Your task to perform on an android device: Open calendar and show me the second week of next month Image 0: 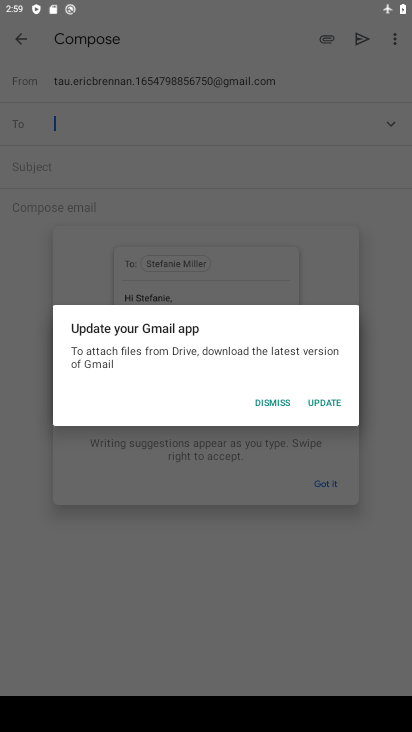
Step 0: click (296, 400)
Your task to perform on an android device: Open calendar and show me the second week of next month Image 1: 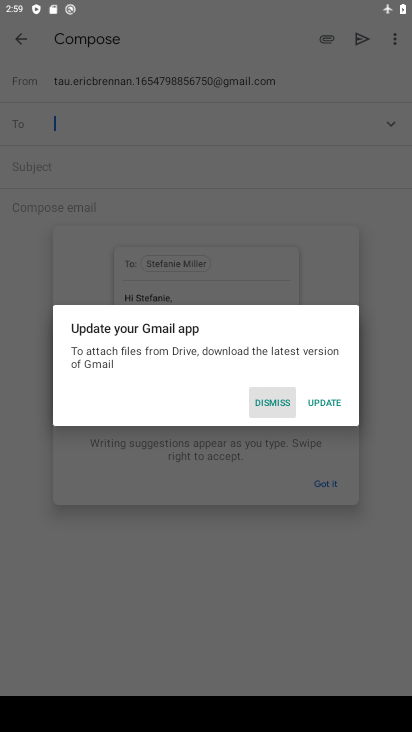
Step 1: click (293, 401)
Your task to perform on an android device: Open calendar and show me the second week of next month Image 2: 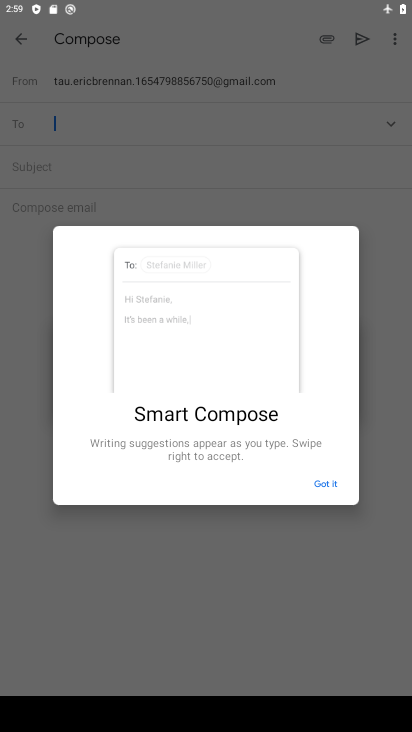
Step 2: click (328, 484)
Your task to perform on an android device: Open calendar and show me the second week of next month Image 3: 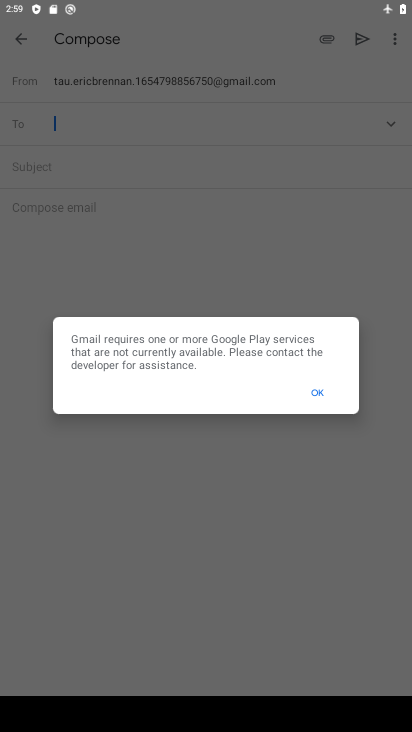
Step 3: click (318, 385)
Your task to perform on an android device: Open calendar and show me the second week of next month Image 4: 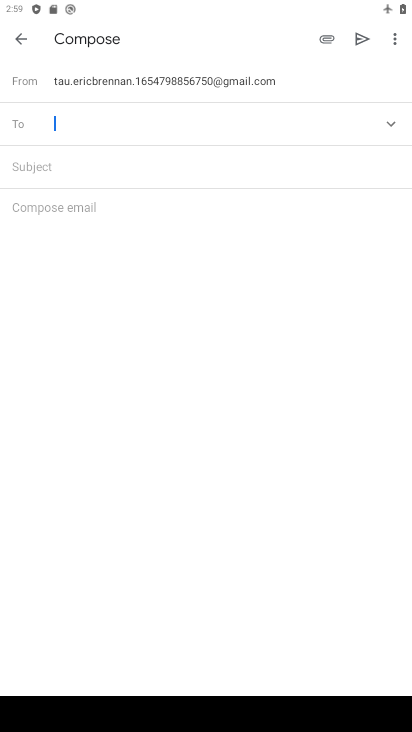
Step 4: click (16, 38)
Your task to perform on an android device: Open calendar and show me the second week of next month Image 5: 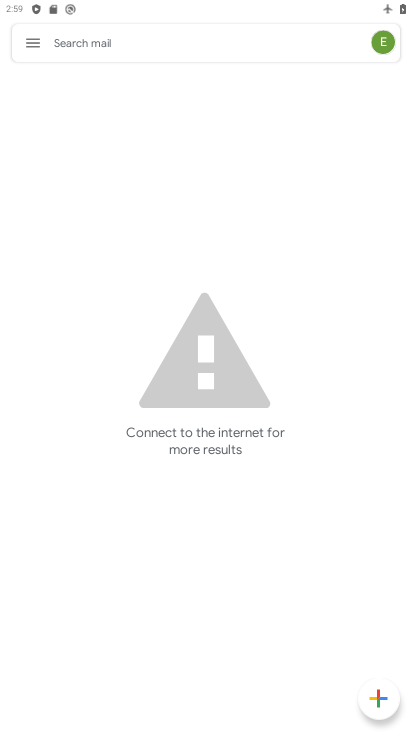
Step 5: press back button
Your task to perform on an android device: Open calendar and show me the second week of next month Image 6: 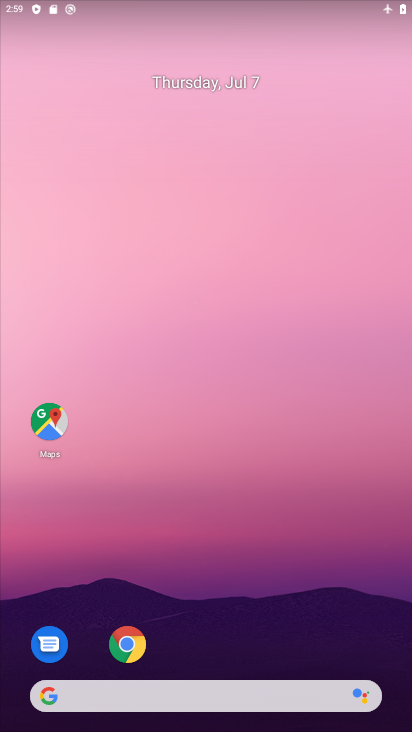
Step 6: drag from (242, 555) to (190, 282)
Your task to perform on an android device: Open calendar and show me the second week of next month Image 7: 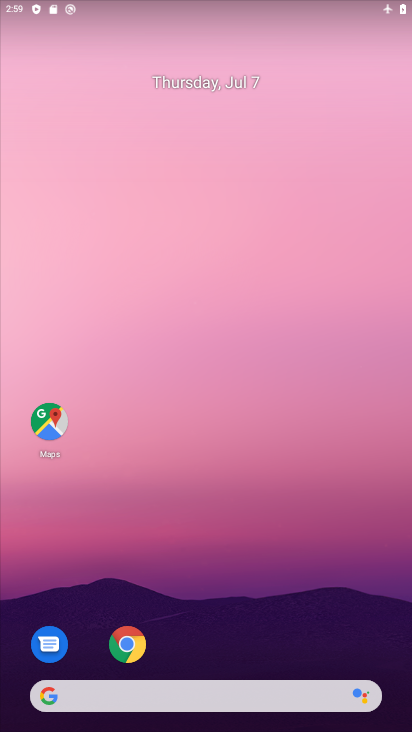
Step 7: drag from (293, 669) to (191, 222)
Your task to perform on an android device: Open calendar and show me the second week of next month Image 8: 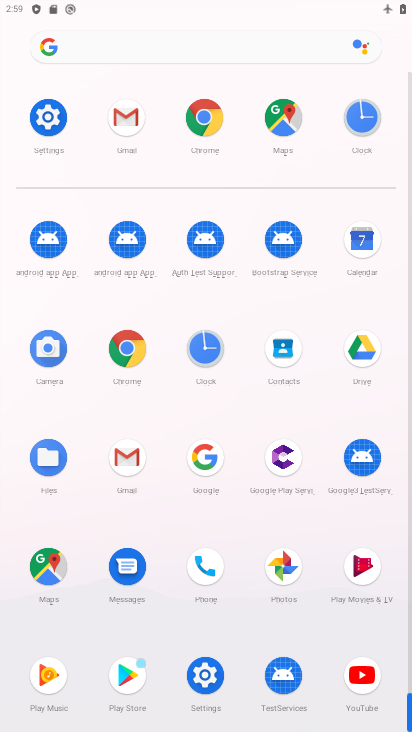
Step 8: click (364, 231)
Your task to perform on an android device: Open calendar and show me the second week of next month Image 9: 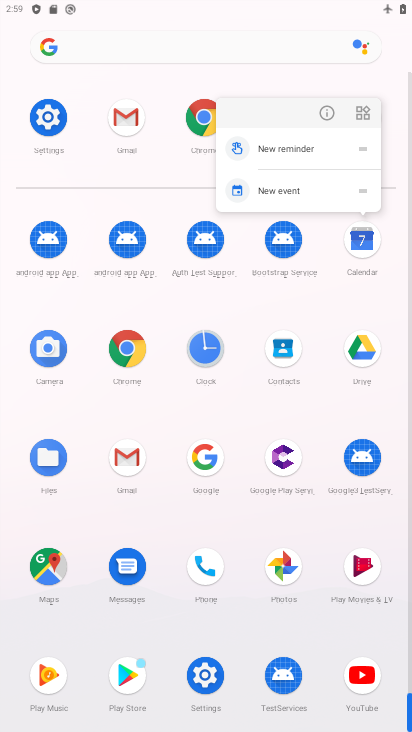
Step 9: click (356, 242)
Your task to perform on an android device: Open calendar and show me the second week of next month Image 10: 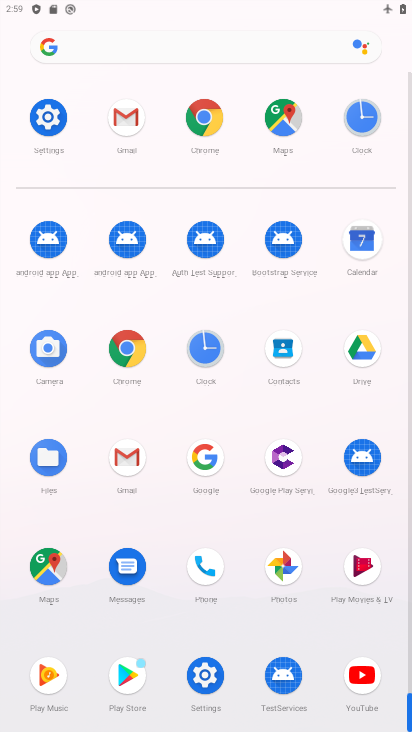
Step 10: click (357, 241)
Your task to perform on an android device: Open calendar and show me the second week of next month Image 11: 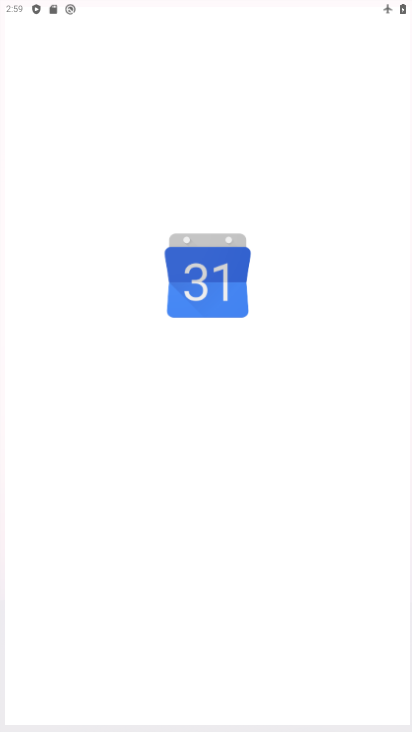
Step 11: click (357, 241)
Your task to perform on an android device: Open calendar and show me the second week of next month Image 12: 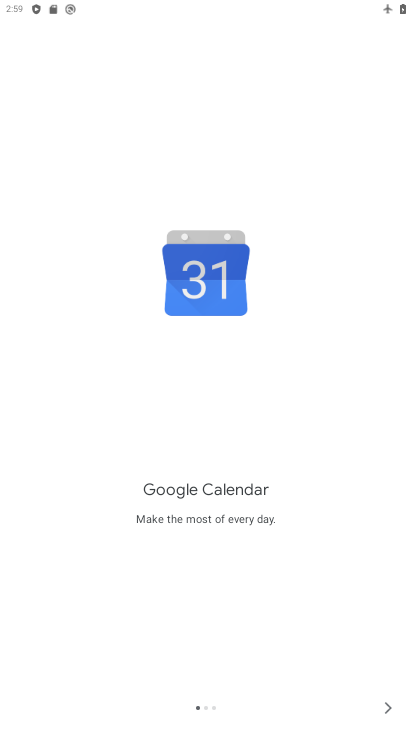
Step 12: click (388, 699)
Your task to perform on an android device: Open calendar and show me the second week of next month Image 13: 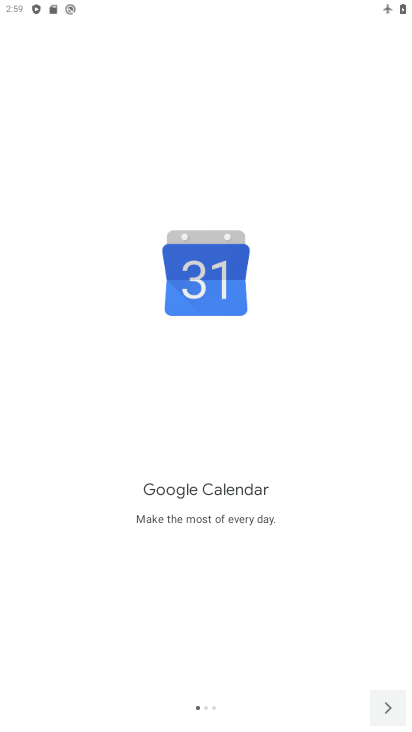
Step 13: click (389, 698)
Your task to perform on an android device: Open calendar and show me the second week of next month Image 14: 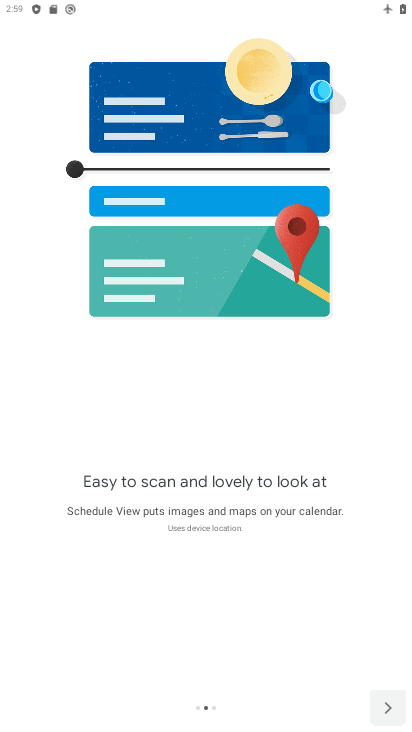
Step 14: click (389, 698)
Your task to perform on an android device: Open calendar and show me the second week of next month Image 15: 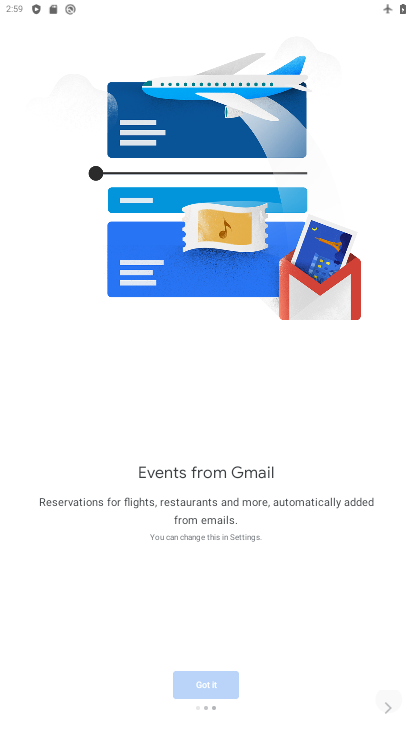
Step 15: click (389, 698)
Your task to perform on an android device: Open calendar and show me the second week of next month Image 16: 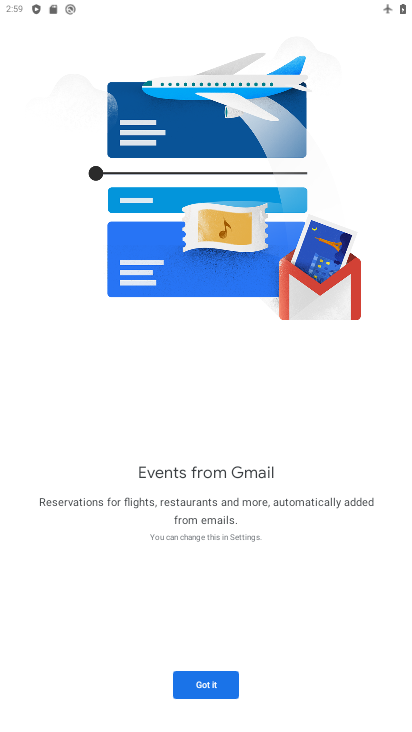
Step 16: click (389, 698)
Your task to perform on an android device: Open calendar and show me the second week of next month Image 17: 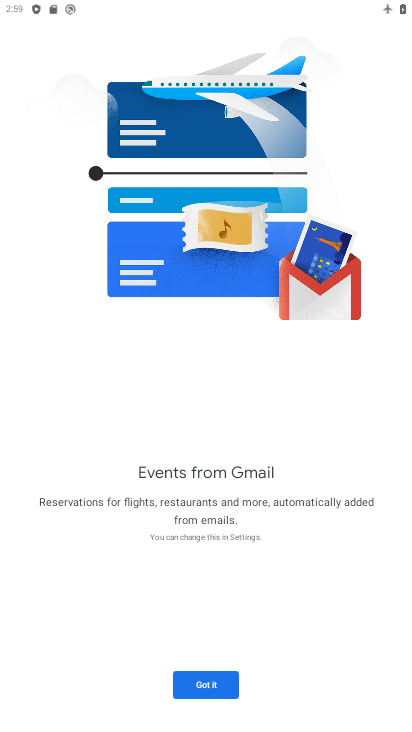
Step 17: click (207, 685)
Your task to perform on an android device: Open calendar and show me the second week of next month Image 18: 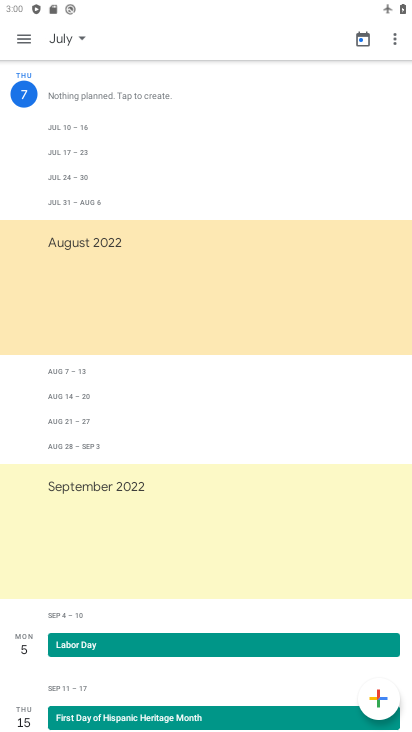
Step 18: click (75, 387)
Your task to perform on an android device: Open calendar and show me the second week of next month Image 19: 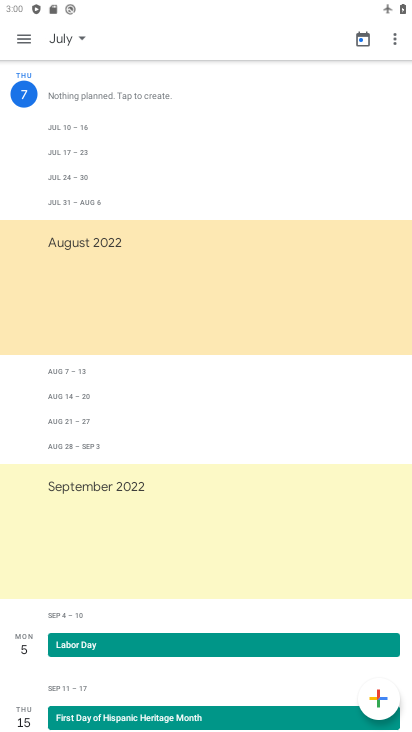
Step 19: click (75, 395)
Your task to perform on an android device: Open calendar and show me the second week of next month Image 20: 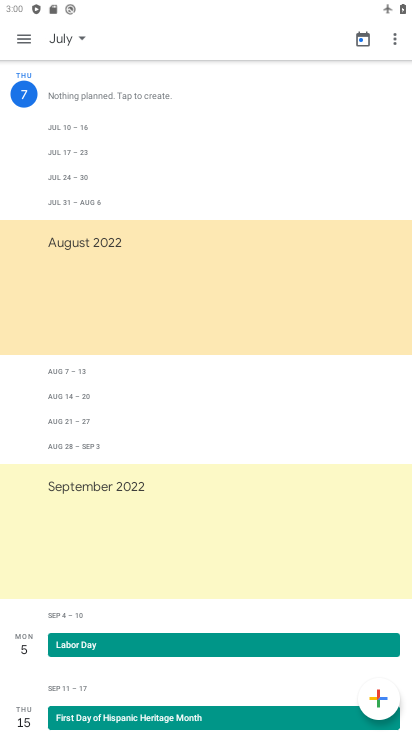
Step 20: click (76, 396)
Your task to perform on an android device: Open calendar and show me the second week of next month Image 21: 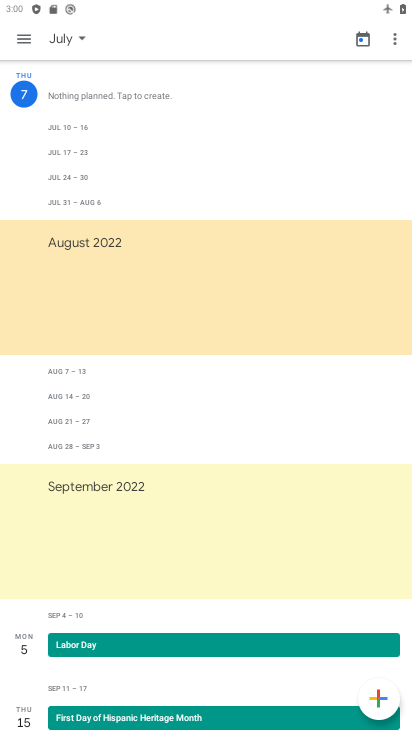
Step 21: click (76, 396)
Your task to perform on an android device: Open calendar and show me the second week of next month Image 22: 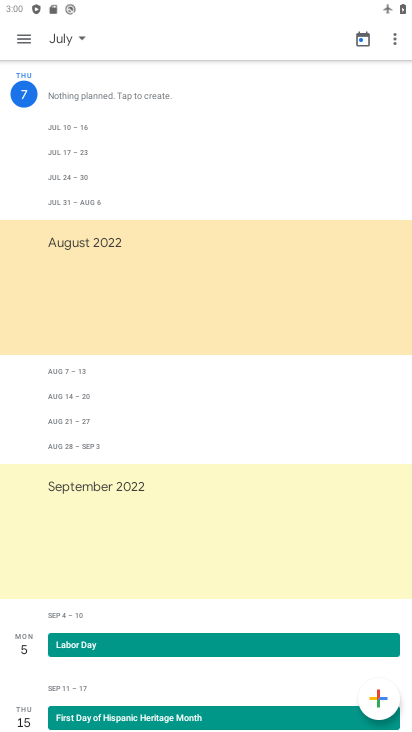
Step 22: click (76, 396)
Your task to perform on an android device: Open calendar and show me the second week of next month Image 23: 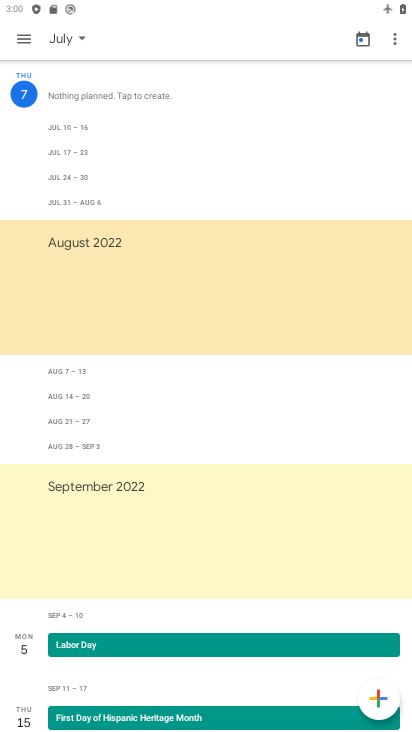
Step 23: click (84, 392)
Your task to perform on an android device: Open calendar and show me the second week of next month Image 24: 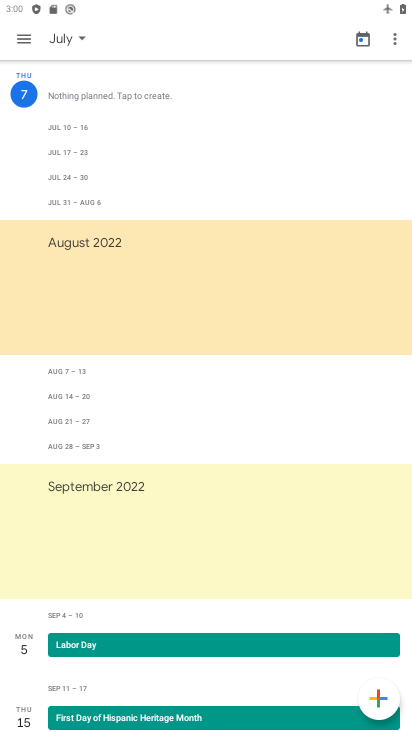
Step 24: click (83, 391)
Your task to perform on an android device: Open calendar and show me the second week of next month Image 25: 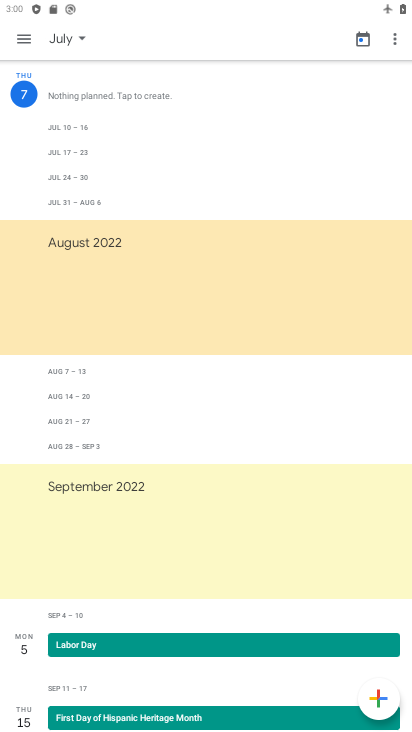
Step 25: click (76, 390)
Your task to perform on an android device: Open calendar and show me the second week of next month Image 26: 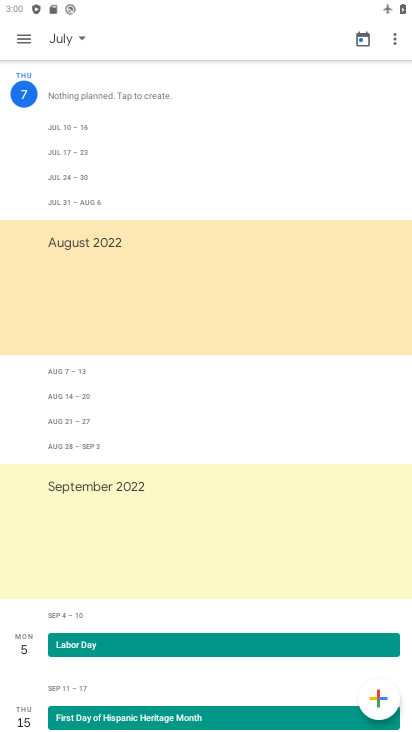
Step 26: click (79, 382)
Your task to perform on an android device: Open calendar and show me the second week of next month Image 27: 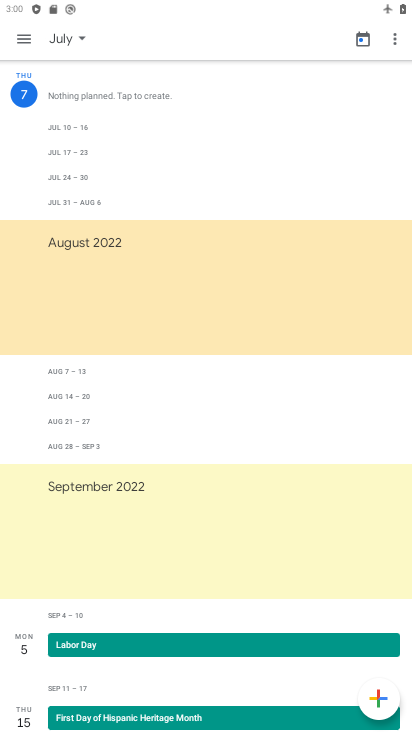
Step 27: drag from (81, 384) to (76, 120)
Your task to perform on an android device: Open calendar and show me the second week of next month Image 28: 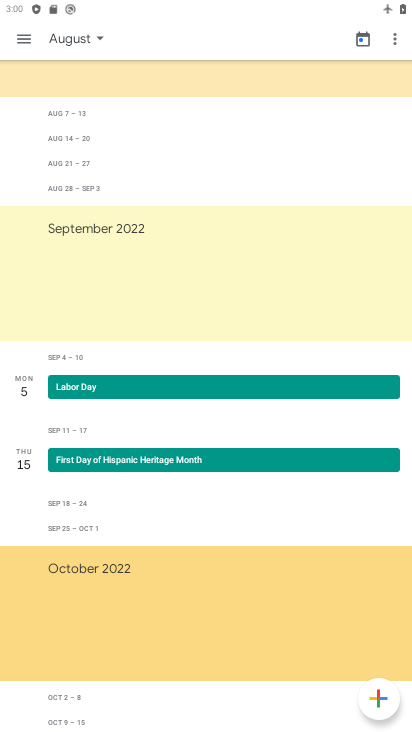
Step 28: click (68, 406)
Your task to perform on an android device: Open calendar and show me the second week of next month Image 29: 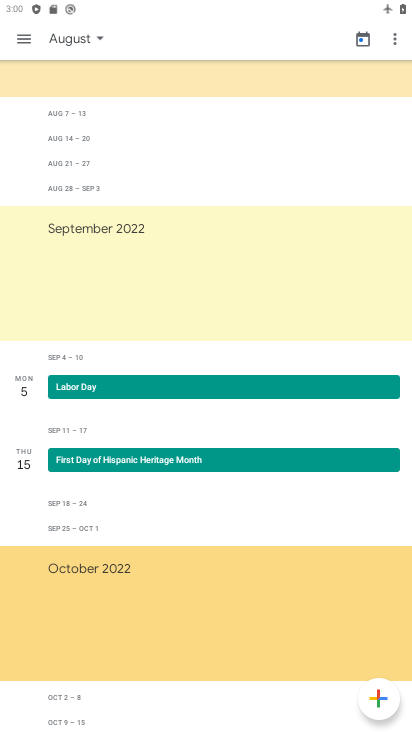
Step 29: click (85, 132)
Your task to perform on an android device: Open calendar and show me the second week of next month Image 30: 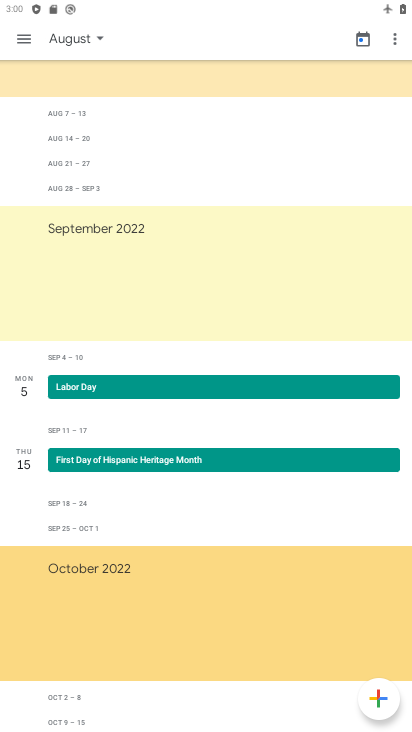
Step 30: click (85, 132)
Your task to perform on an android device: Open calendar and show me the second week of next month Image 31: 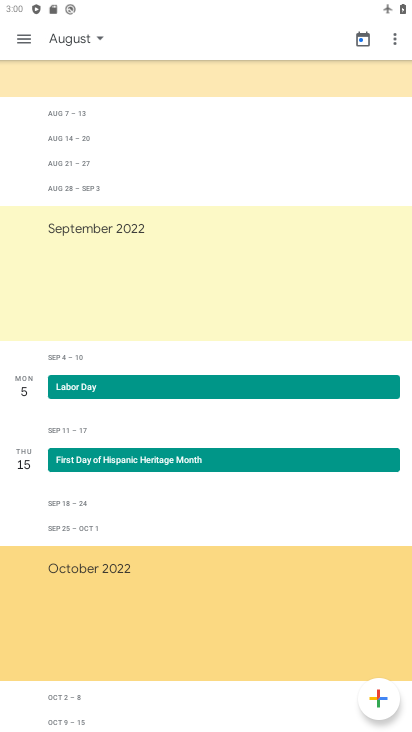
Step 31: click (85, 132)
Your task to perform on an android device: Open calendar and show me the second week of next month Image 32: 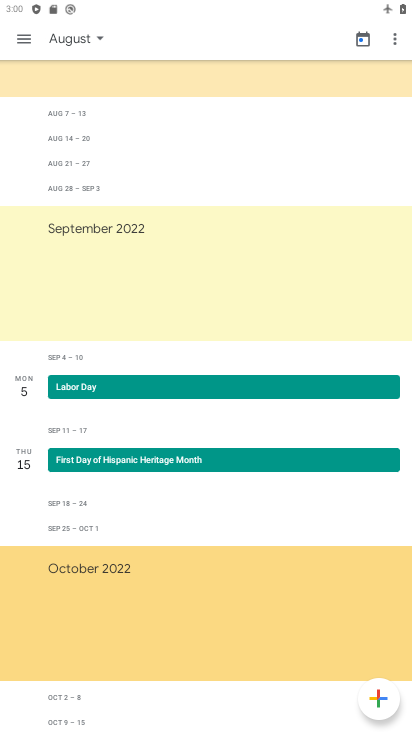
Step 32: click (85, 132)
Your task to perform on an android device: Open calendar and show me the second week of next month Image 33: 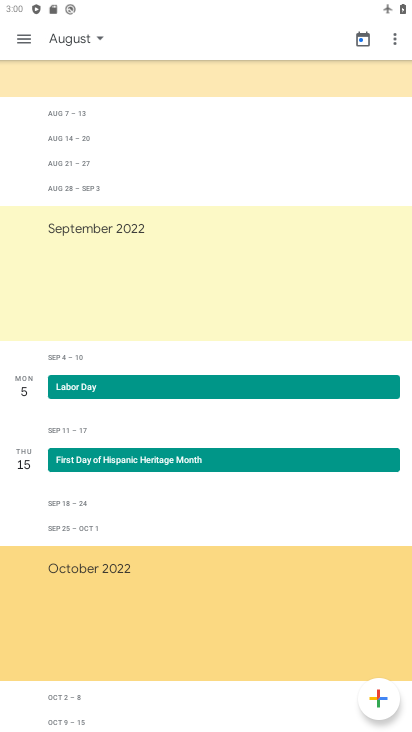
Step 33: click (90, 139)
Your task to perform on an android device: Open calendar and show me the second week of next month Image 34: 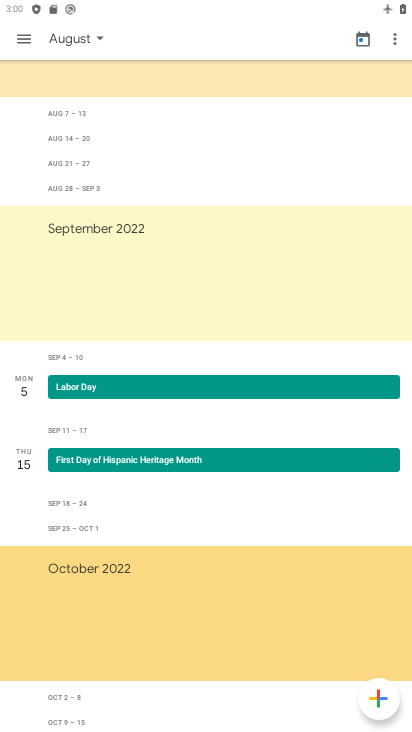
Step 34: click (35, 34)
Your task to perform on an android device: Open calendar and show me the second week of next month Image 35: 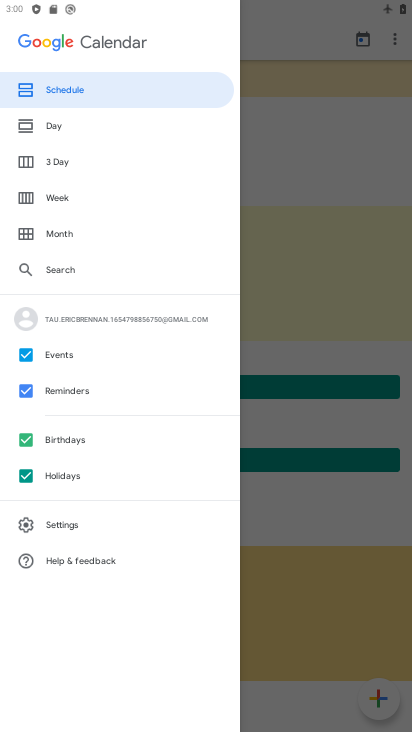
Step 35: click (62, 77)
Your task to perform on an android device: Open calendar and show me the second week of next month Image 36: 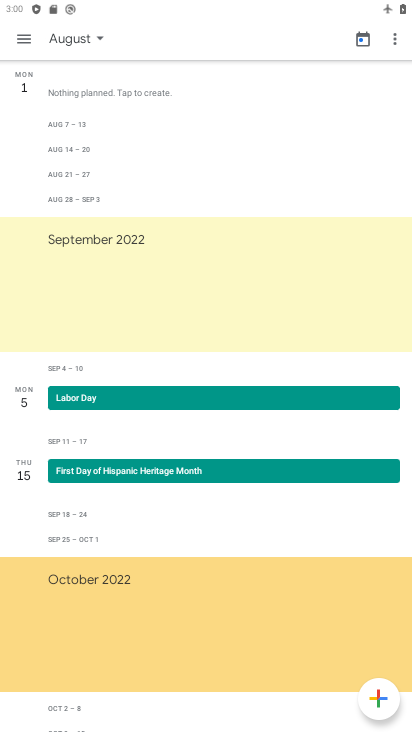
Step 36: click (77, 155)
Your task to perform on an android device: Open calendar and show me the second week of next month Image 37: 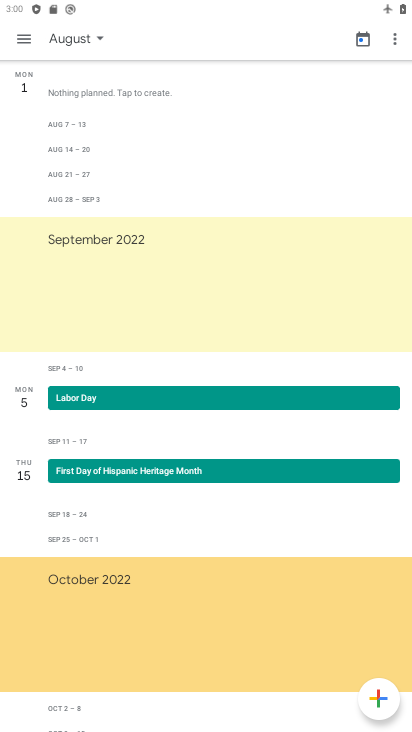
Step 37: click (76, 153)
Your task to perform on an android device: Open calendar and show me the second week of next month Image 38: 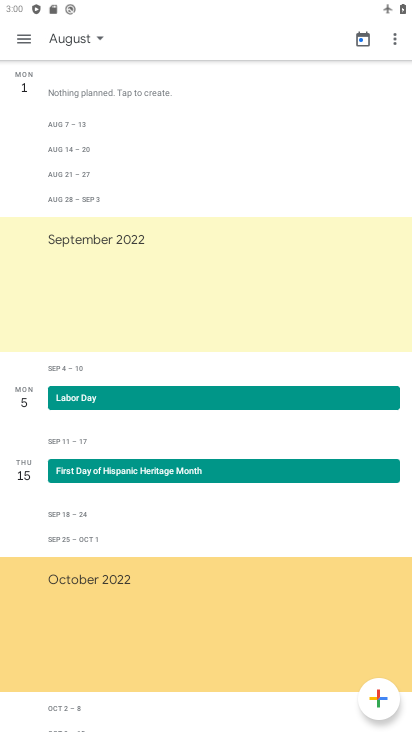
Step 38: click (76, 149)
Your task to perform on an android device: Open calendar and show me the second week of next month Image 39: 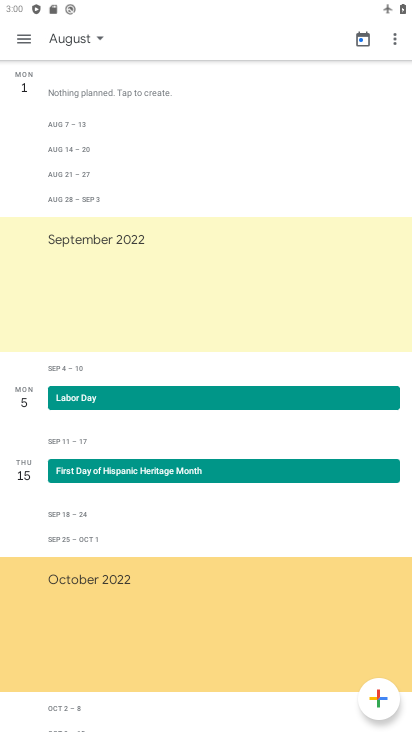
Step 39: task complete